Your task to perform on an android device: open a bookmark in the chrome app Image 0: 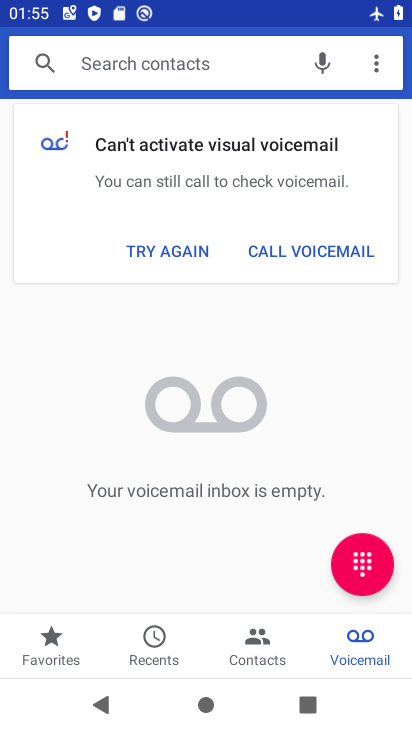
Step 0: press home button
Your task to perform on an android device: open a bookmark in the chrome app Image 1: 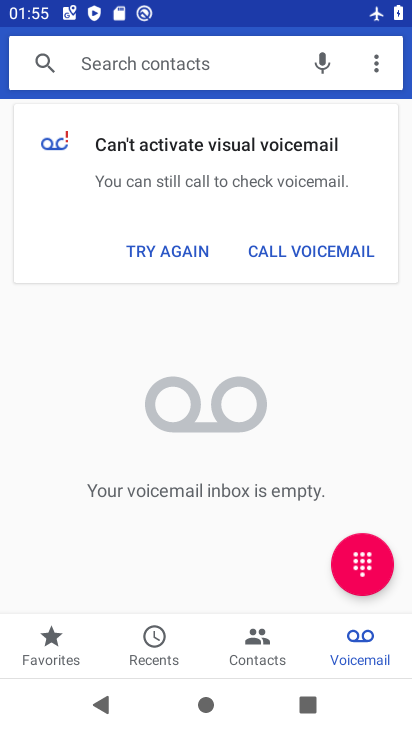
Step 1: press home button
Your task to perform on an android device: open a bookmark in the chrome app Image 2: 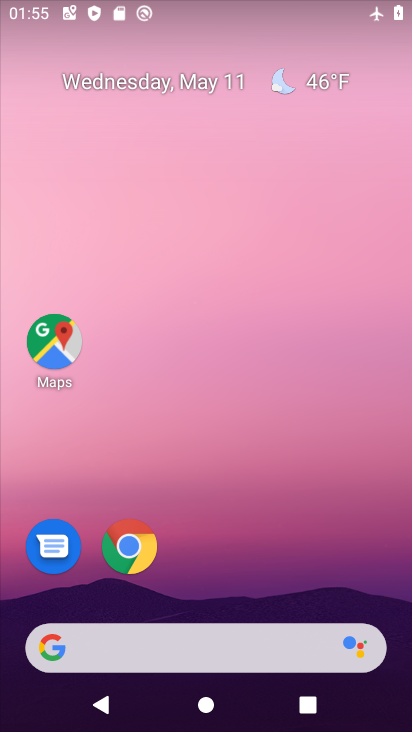
Step 2: drag from (197, 585) to (267, 217)
Your task to perform on an android device: open a bookmark in the chrome app Image 3: 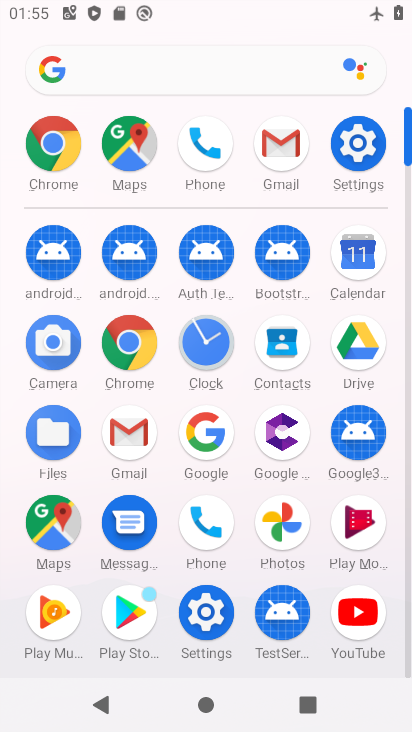
Step 3: click (124, 347)
Your task to perform on an android device: open a bookmark in the chrome app Image 4: 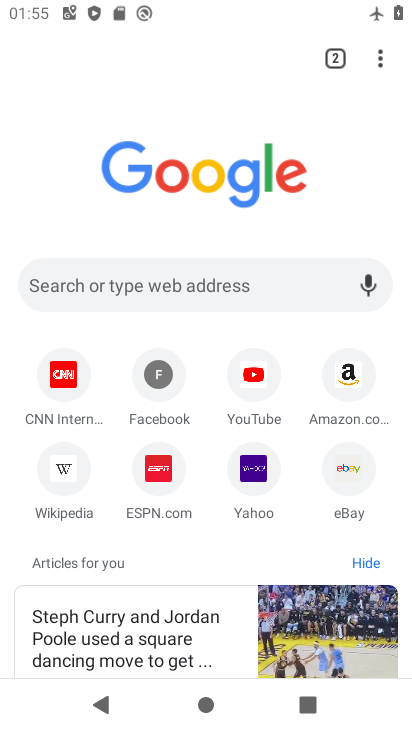
Step 4: task complete